Your task to perform on an android device: Open Google Maps Image 0: 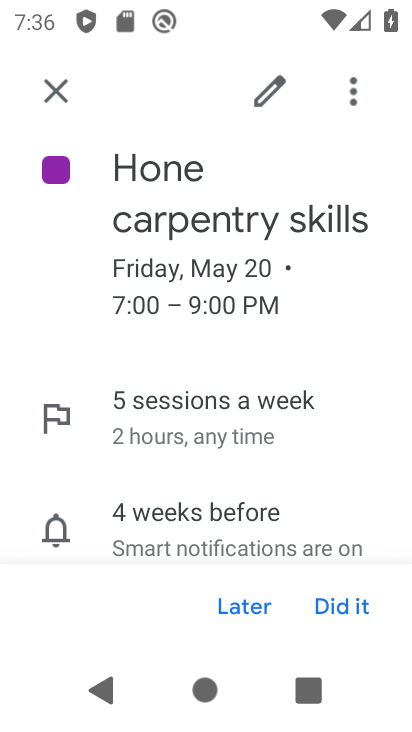
Step 0: press home button
Your task to perform on an android device: Open Google Maps Image 1: 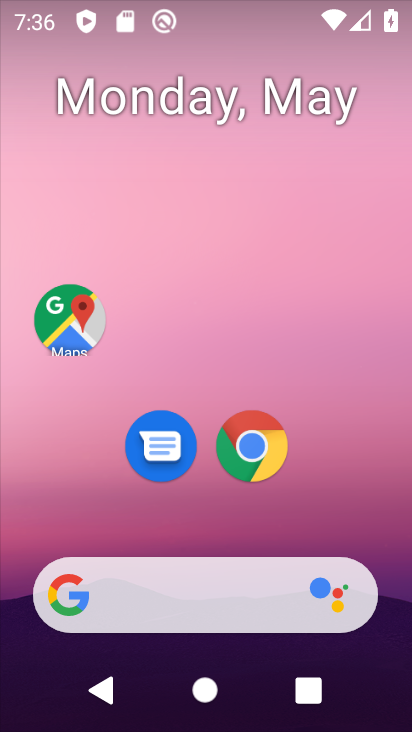
Step 1: click (69, 331)
Your task to perform on an android device: Open Google Maps Image 2: 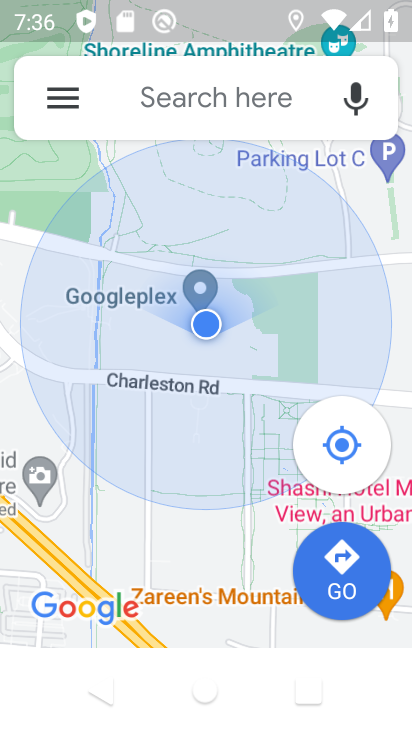
Step 2: task complete